Your task to perform on an android device: turn off airplane mode Image 0: 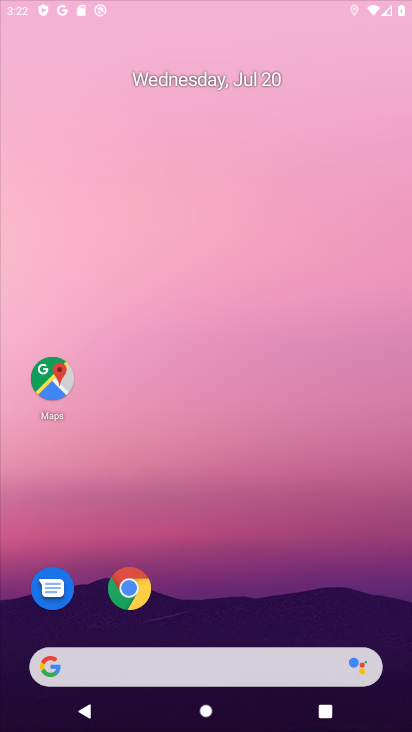
Step 0: drag from (187, 601) to (208, 207)
Your task to perform on an android device: turn off airplane mode Image 1: 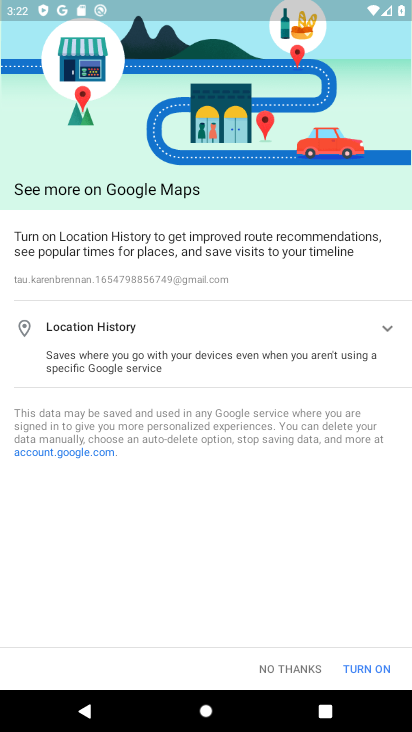
Step 1: task complete